Your task to perform on an android device: empty trash in google photos Image 0: 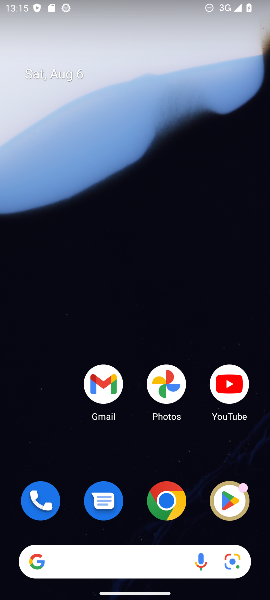
Step 0: click (165, 389)
Your task to perform on an android device: empty trash in google photos Image 1: 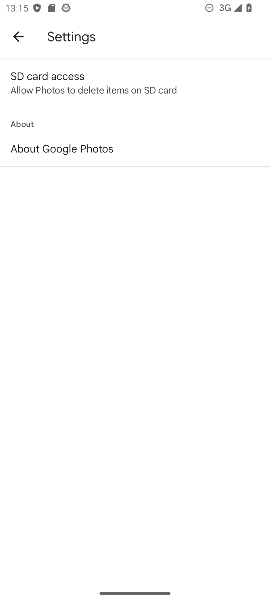
Step 1: click (21, 40)
Your task to perform on an android device: empty trash in google photos Image 2: 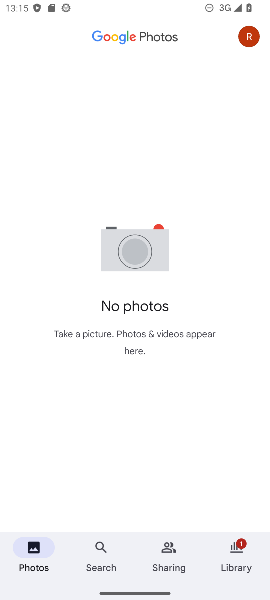
Step 2: click (234, 549)
Your task to perform on an android device: empty trash in google photos Image 3: 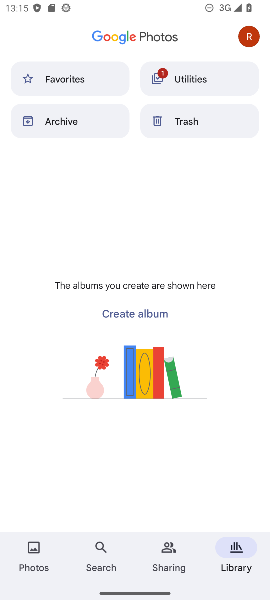
Step 3: click (179, 123)
Your task to perform on an android device: empty trash in google photos Image 4: 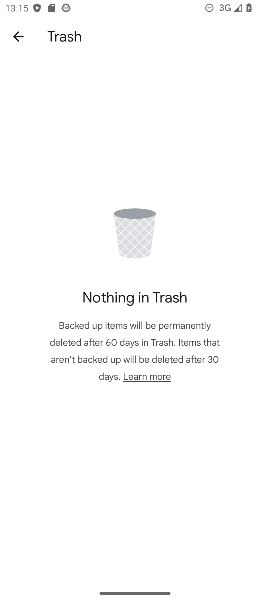
Step 4: task complete